Your task to perform on an android device: Go to wifi settings Image 0: 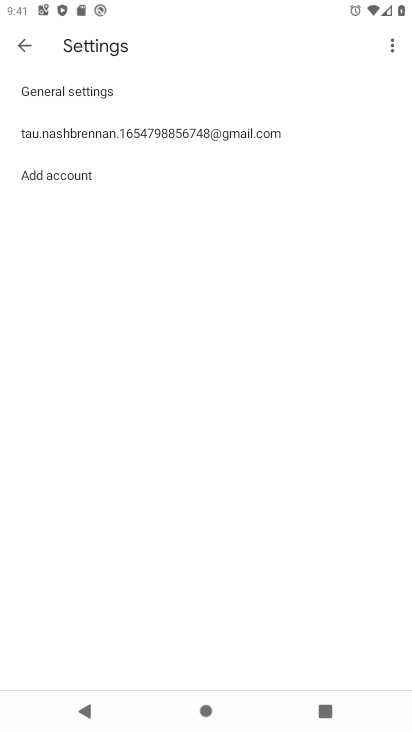
Step 0: drag from (275, 711) to (247, 144)
Your task to perform on an android device: Go to wifi settings Image 1: 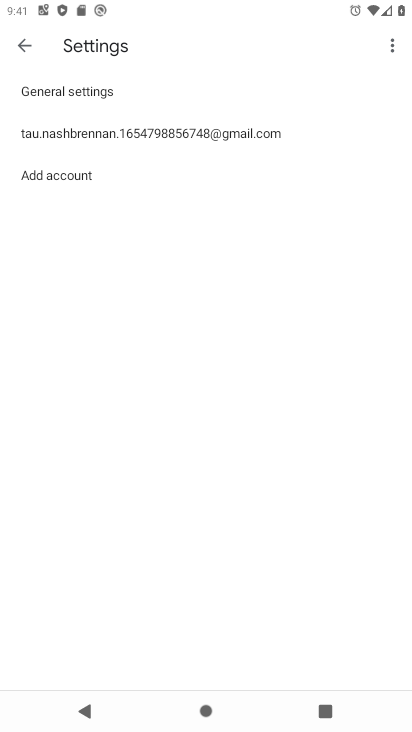
Step 1: click (24, 44)
Your task to perform on an android device: Go to wifi settings Image 2: 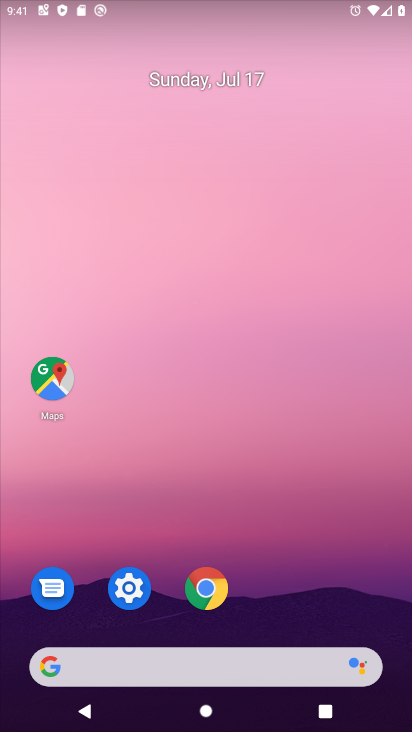
Step 2: drag from (245, 551) to (238, 89)
Your task to perform on an android device: Go to wifi settings Image 3: 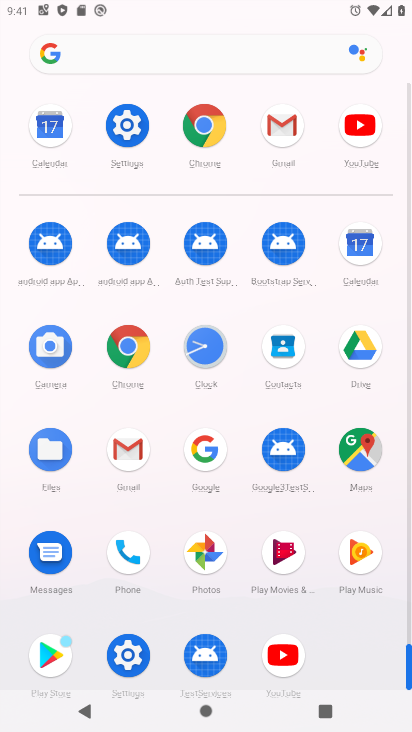
Step 3: click (128, 641)
Your task to perform on an android device: Go to wifi settings Image 4: 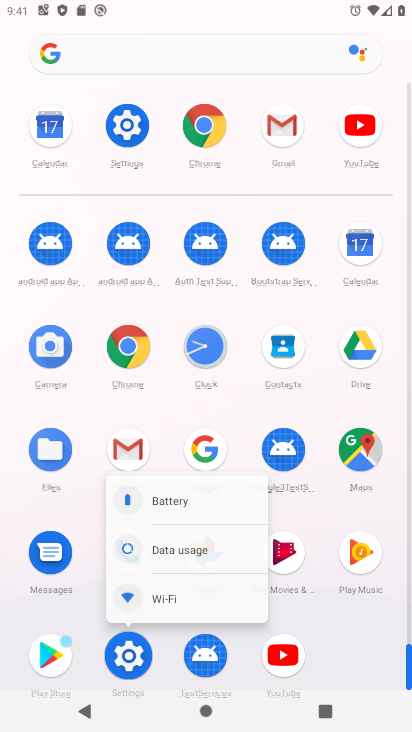
Step 4: click (130, 652)
Your task to perform on an android device: Go to wifi settings Image 5: 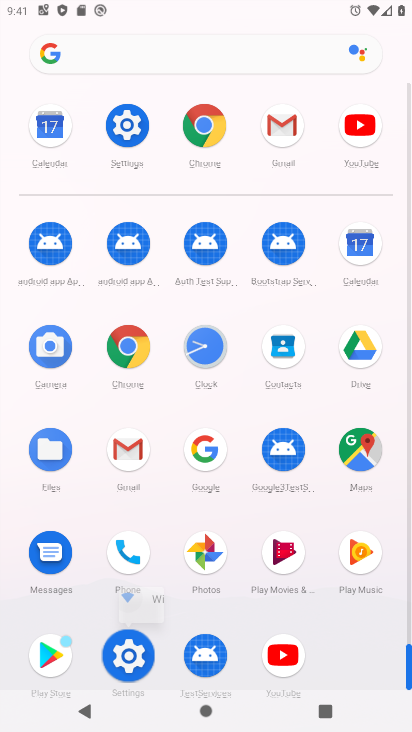
Step 5: click (127, 654)
Your task to perform on an android device: Go to wifi settings Image 6: 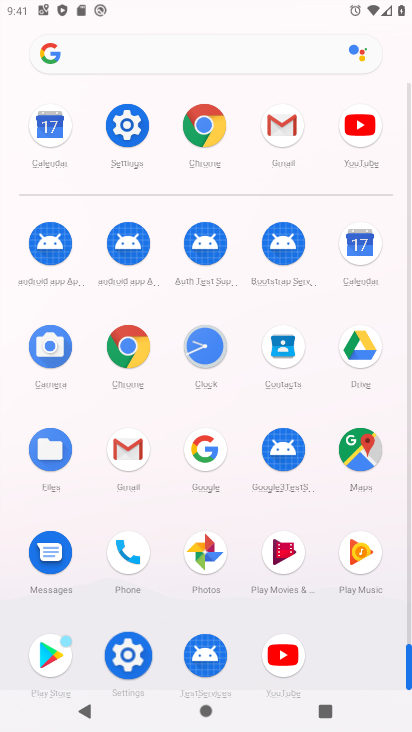
Step 6: click (126, 647)
Your task to perform on an android device: Go to wifi settings Image 7: 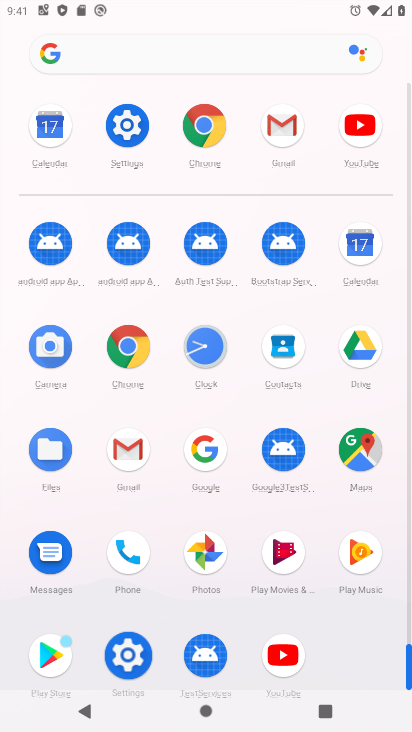
Step 7: click (129, 649)
Your task to perform on an android device: Go to wifi settings Image 8: 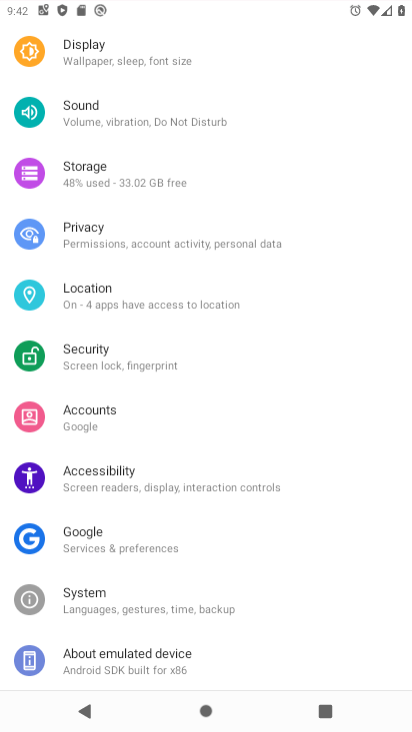
Step 8: click (133, 654)
Your task to perform on an android device: Go to wifi settings Image 9: 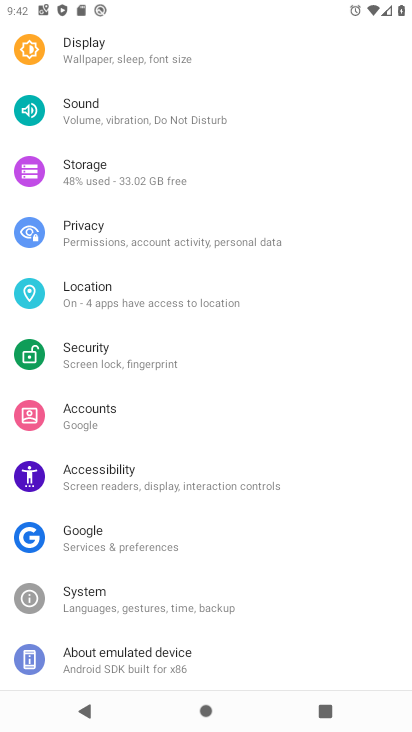
Step 9: click (138, 655)
Your task to perform on an android device: Go to wifi settings Image 10: 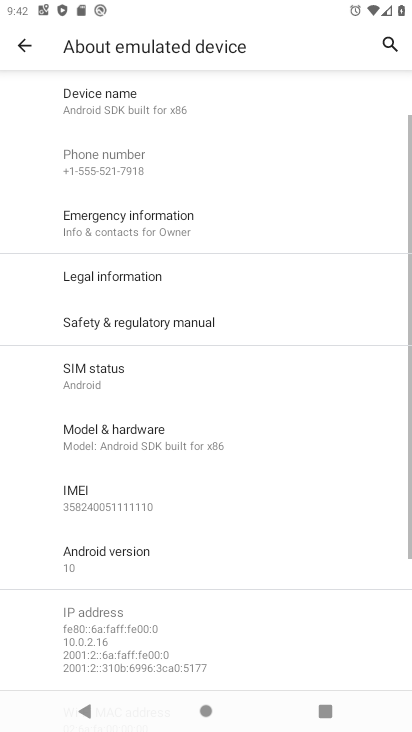
Step 10: click (31, 45)
Your task to perform on an android device: Go to wifi settings Image 11: 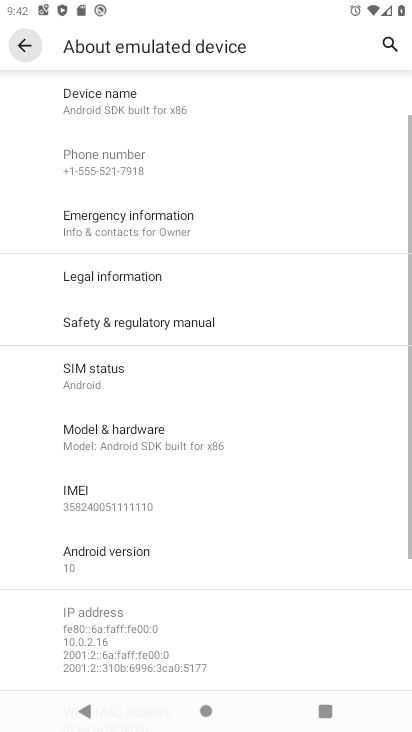
Step 11: click (27, 43)
Your task to perform on an android device: Go to wifi settings Image 12: 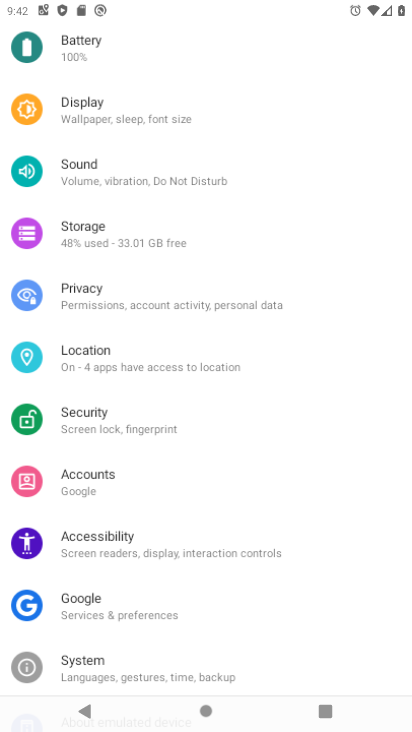
Step 12: click (26, 44)
Your task to perform on an android device: Go to wifi settings Image 13: 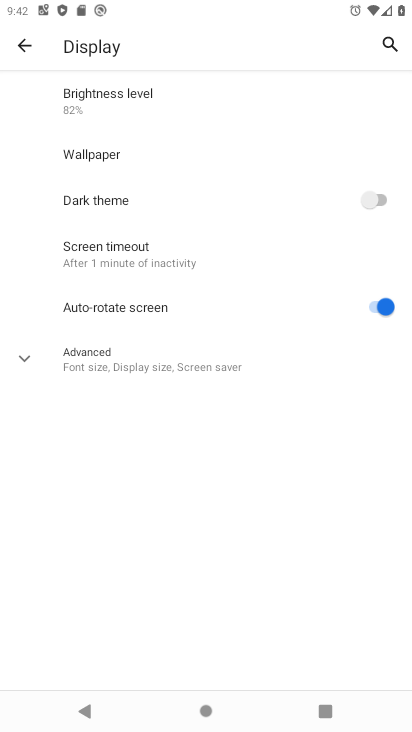
Step 13: click (31, 43)
Your task to perform on an android device: Go to wifi settings Image 14: 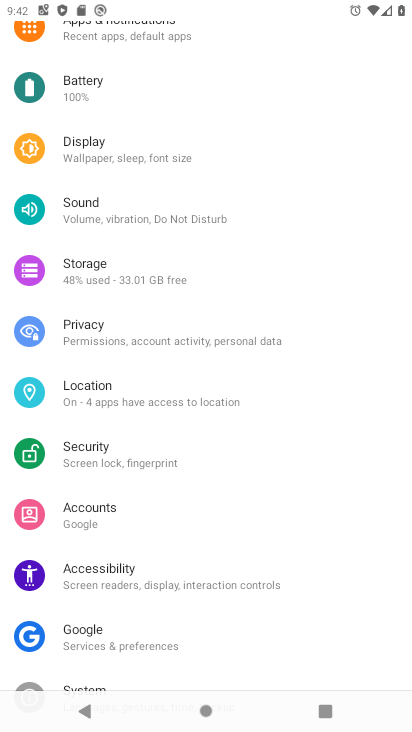
Step 14: drag from (150, 157) to (86, 620)
Your task to perform on an android device: Go to wifi settings Image 15: 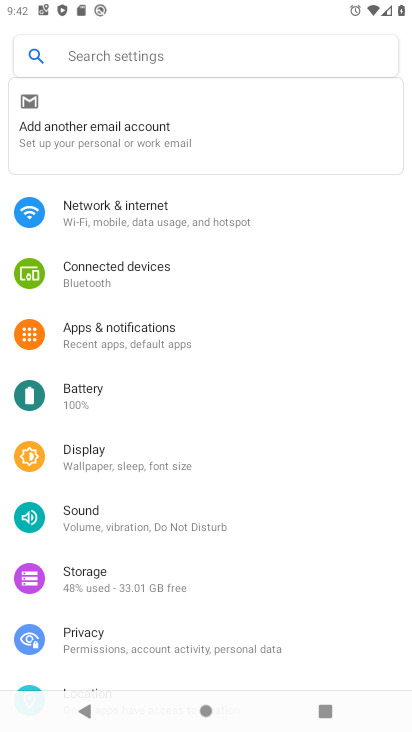
Step 15: drag from (107, 181) to (119, 699)
Your task to perform on an android device: Go to wifi settings Image 16: 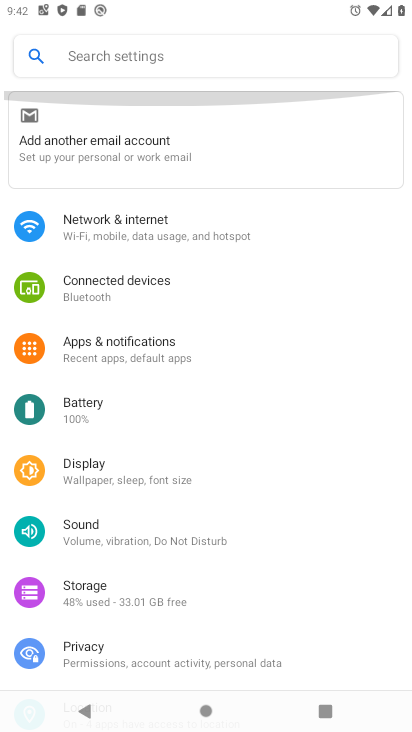
Step 16: drag from (199, 100) to (165, 653)
Your task to perform on an android device: Go to wifi settings Image 17: 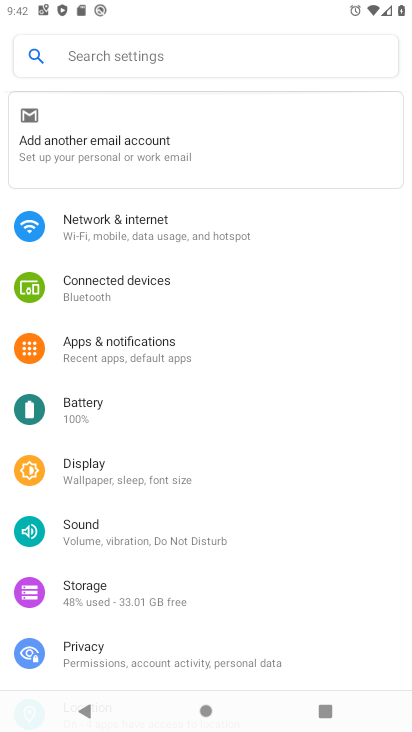
Step 17: click (112, 224)
Your task to perform on an android device: Go to wifi settings Image 18: 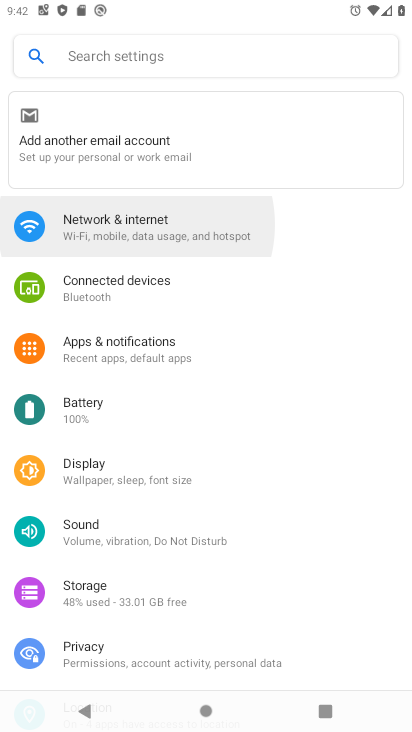
Step 18: click (112, 225)
Your task to perform on an android device: Go to wifi settings Image 19: 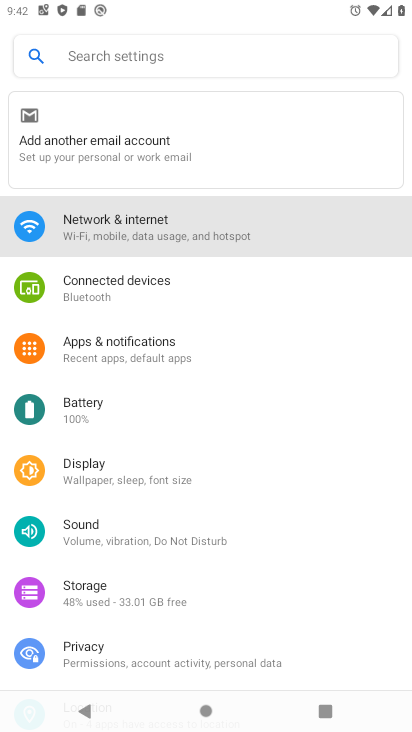
Step 19: click (112, 225)
Your task to perform on an android device: Go to wifi settings Image 20: 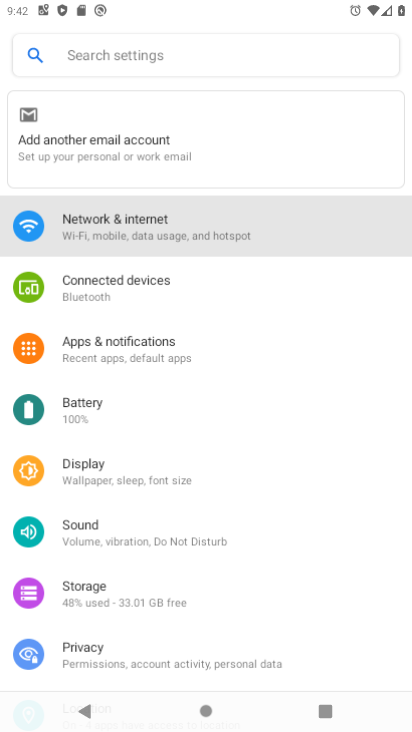
Step 20: click (113, 226)
Your task to perform on an android device: Go to wifi settings Image 21: 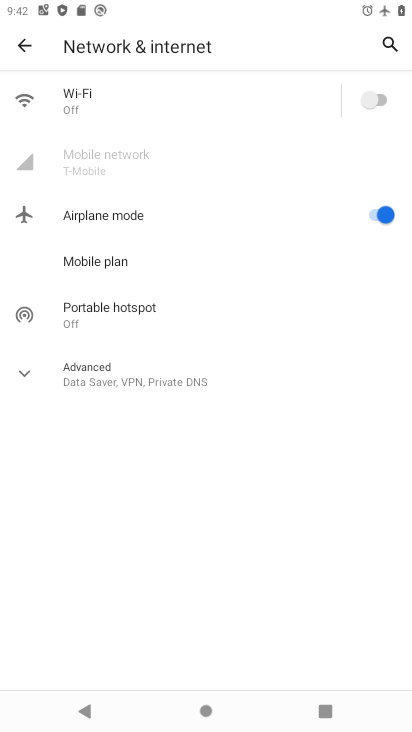
Step 21: click (371, 98)
Your task to perform on an android device: Go to wifi settings Image 22: 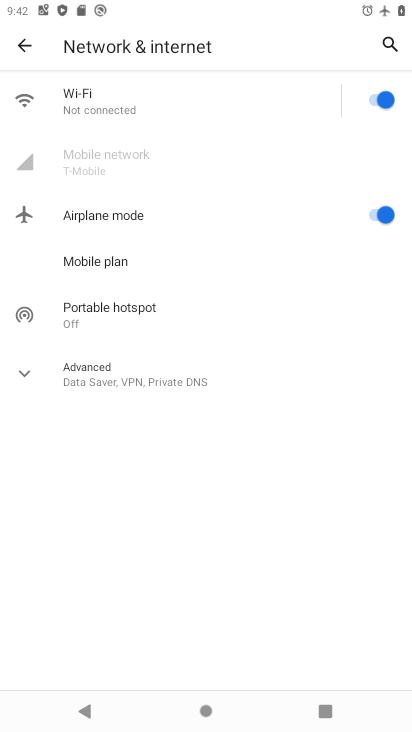
Step 22: click (391, 218)
Your task to perform on an android device: Go to wifi settings Image 23: 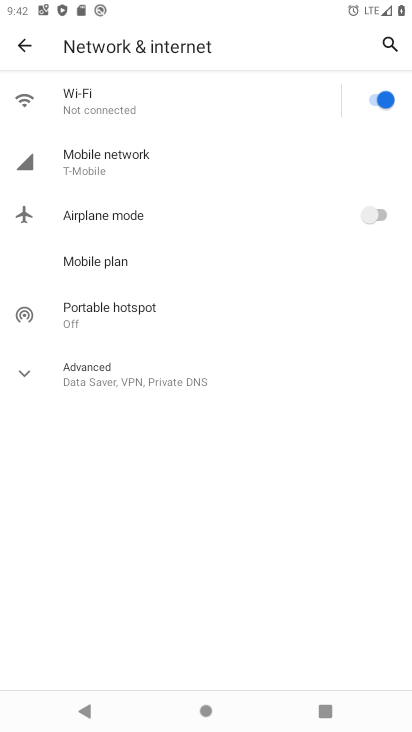
Step 23: task complete